Your task to perform on an android device: move a message to another label in the gmail app Image 0: 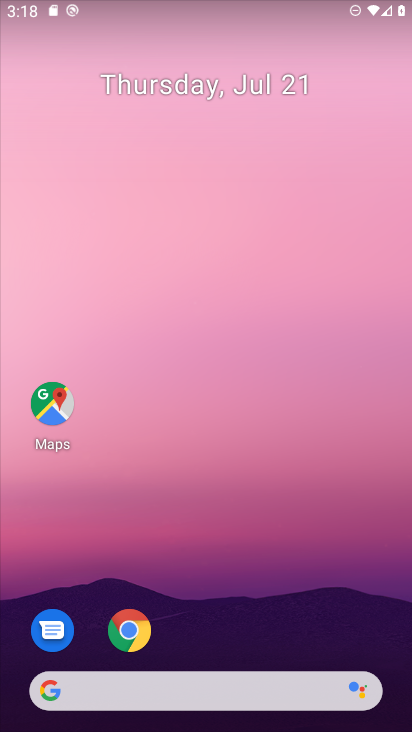
Step 0: drag from (195, 644) to (265, 76)
Your task to perform on an android device: move a message to another label in the gmail app Image 1: 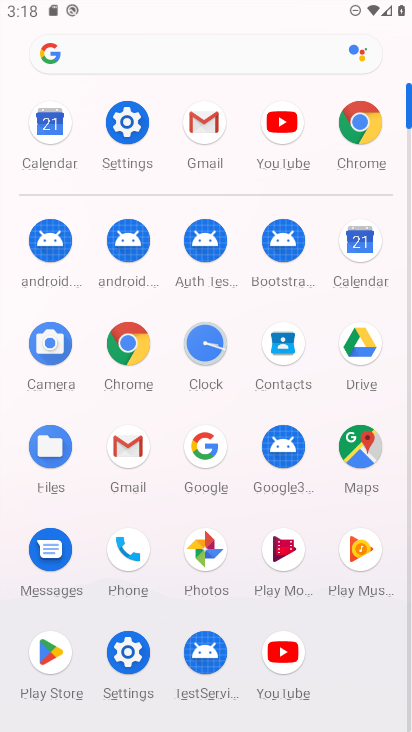
Step 1: click (186, 129)
Your task to perform on an android device: move a message to another label in the gmail app Image 2: 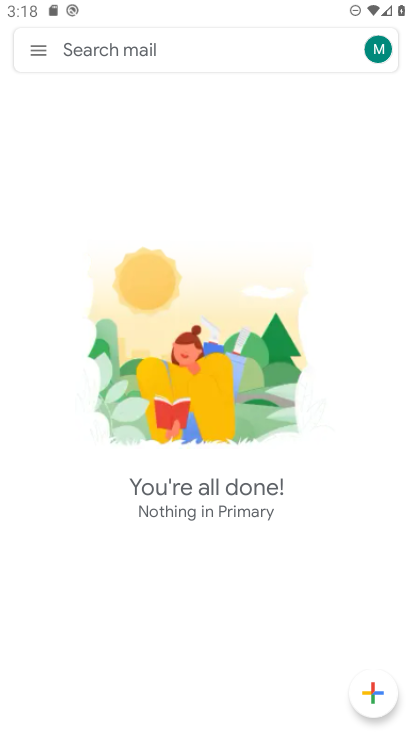
Step 2: click (34, 48)
Your task to perform on an android device: move a message to another label in the gmail app Image 3: 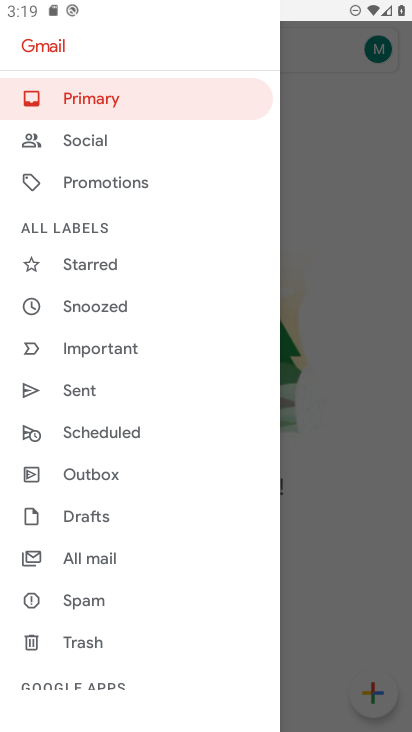
Step 3: click (114, 562)
Your task to perform on an android device: move a message to another label in the gmail app Image 4: 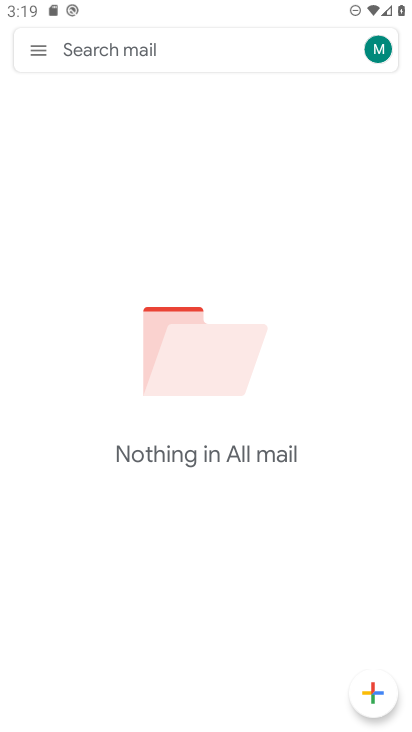
Step 4: task complete